Your task to perform on an android device: change your default location settings in chrome Image 0: 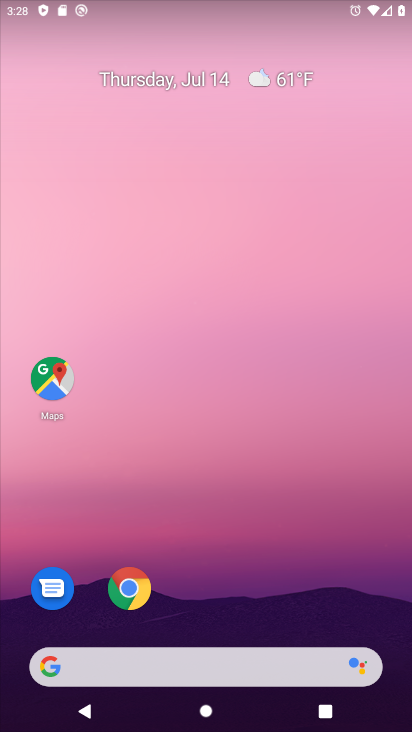
Step 0: press home button
Your task to perform on an android device: change your default location settings in chrome Image 1: 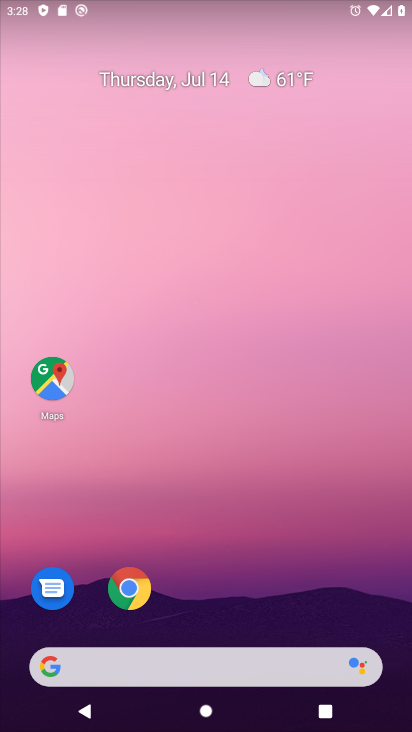
Step 1: click (137, 582)
Your task to perform on an android device: change your default location settings in chrome Image 2: 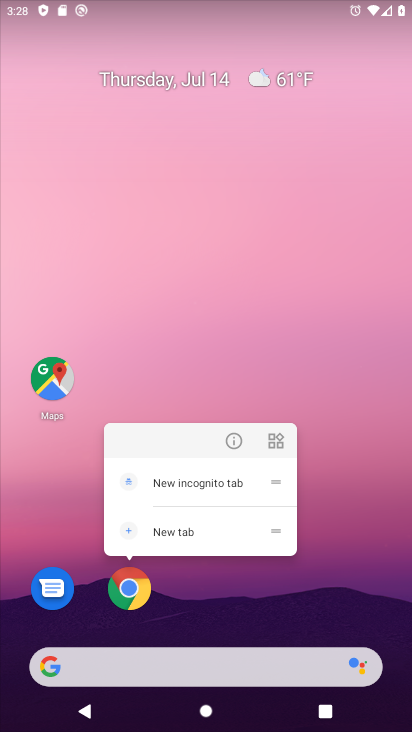
Step 2: click (140, 587)
Your task to perform on an android device: change your default location settings in chrome Image 3: 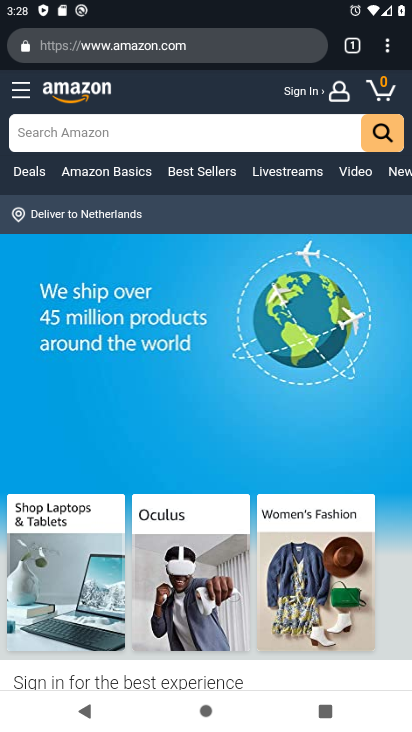
Step 3: click (386, 41)
Your task to perform on an android device: change your default location settings in chrome Image 4: 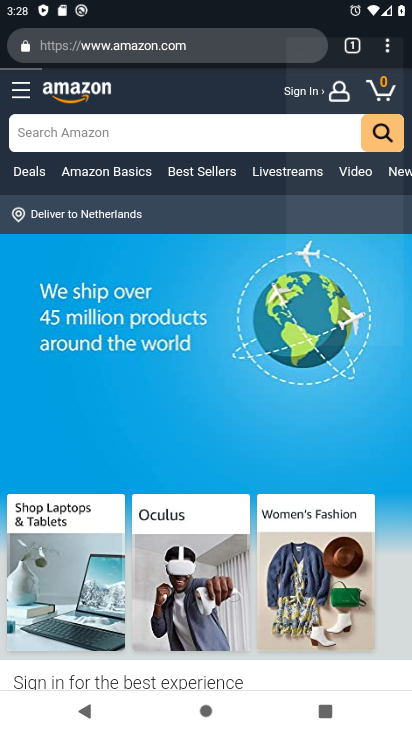
Step 4: drag from (386, 41) to (248, 544)
Your task to perform on an android device: change your default location settings in chrome Image 5: 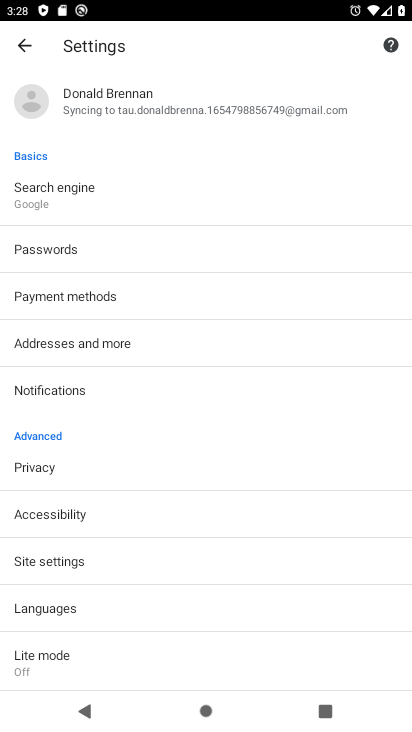
Step 5: click (31, 564)
Your task to perform on an android device: change your default location settings in chrome Image 6: 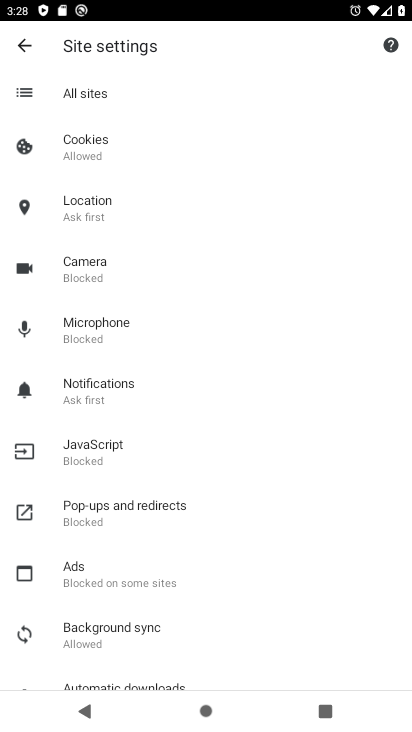
Step 6: click (76, 216)
Your task to perform on an android device: change your default location settings in chrome Image 7: 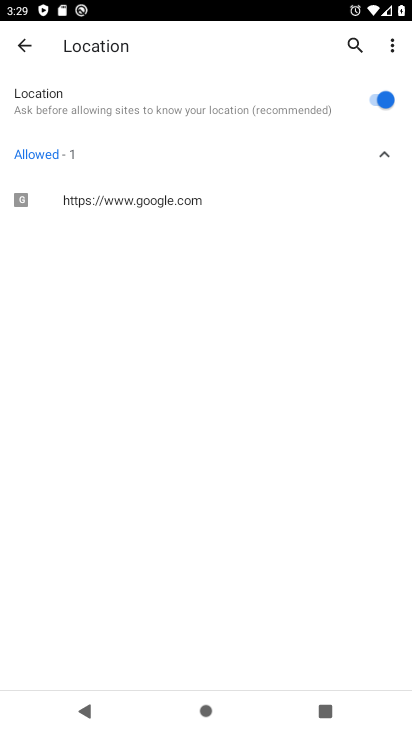
Step 7: click (383, 98)
Your task to perform on an android device: change your default location settings in chrome Image 8: 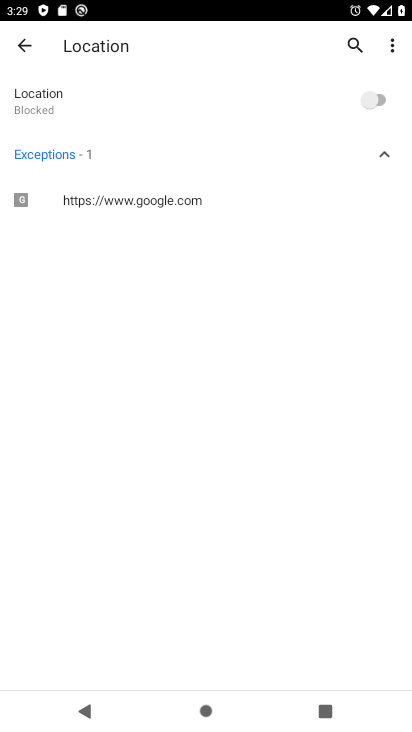
Step 8: task complete